Your task to perform on an android device: Open the clock Image 0: 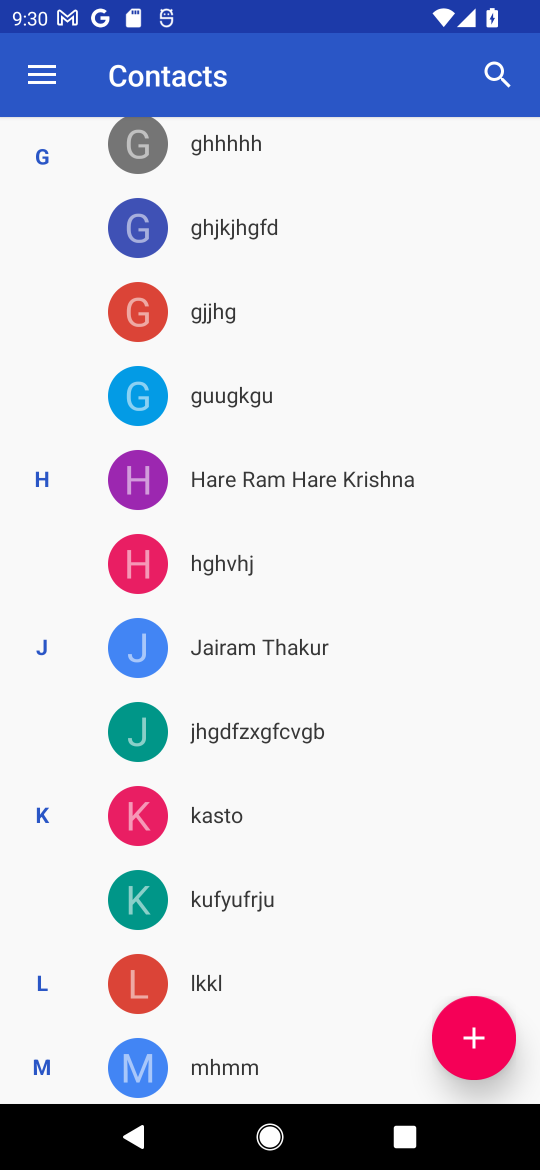
Step 0: press home button
Your task to perform on an android device: Open the clock Image 1: 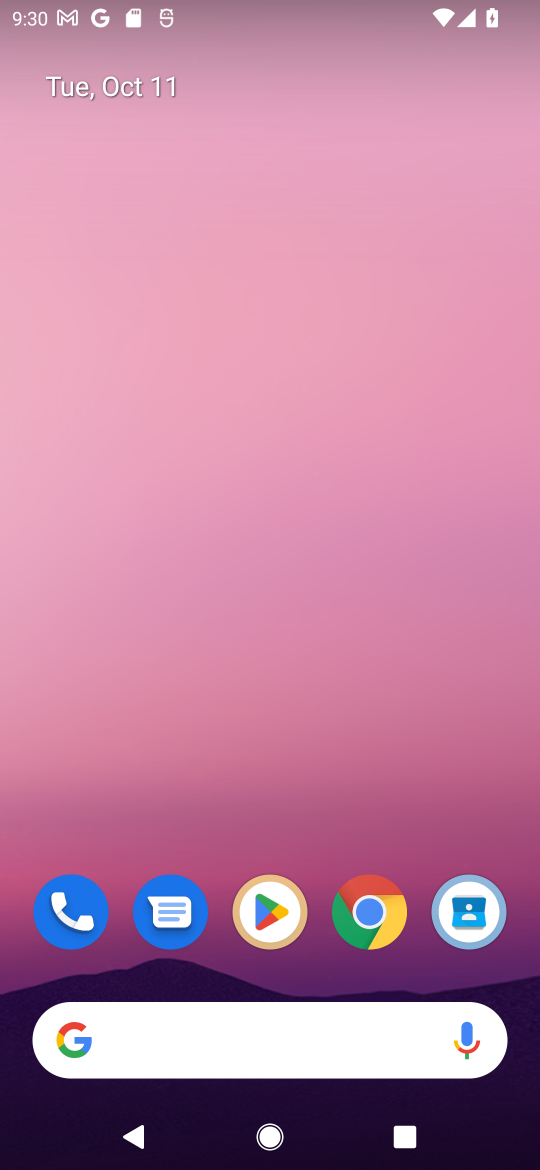
Step 1: drag from (410, 960) to (439, 219)
Your task to perform on an android device: Open the clock Image 2: 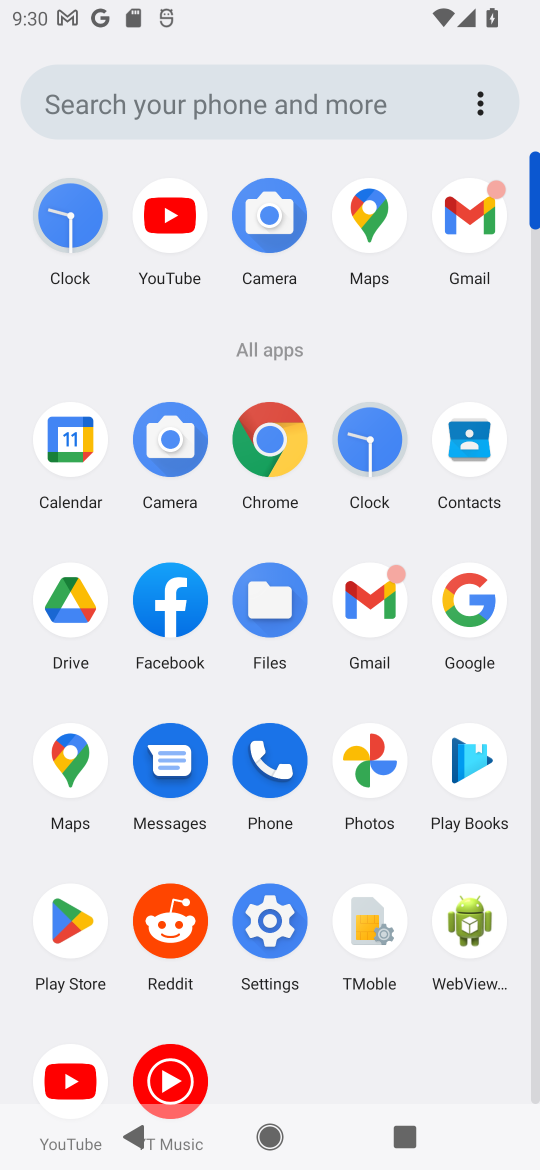
Step 2: click (371, 441)
Your task to perform on an android device: Open the clock Image 3: 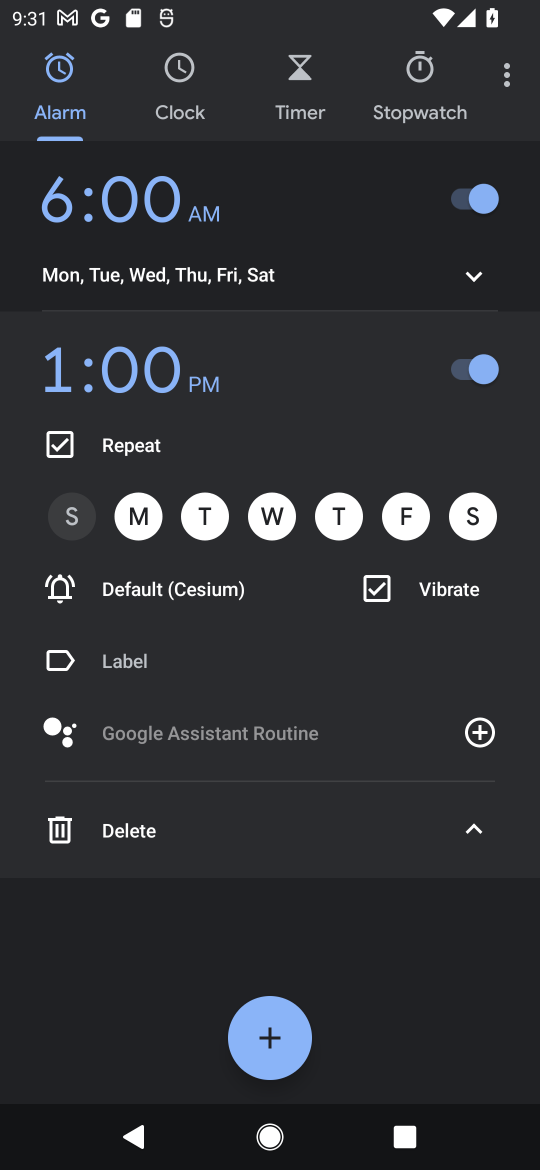
Step 3: click (181, 72)
Your task to perform on an android device: Open the clock Image 4: 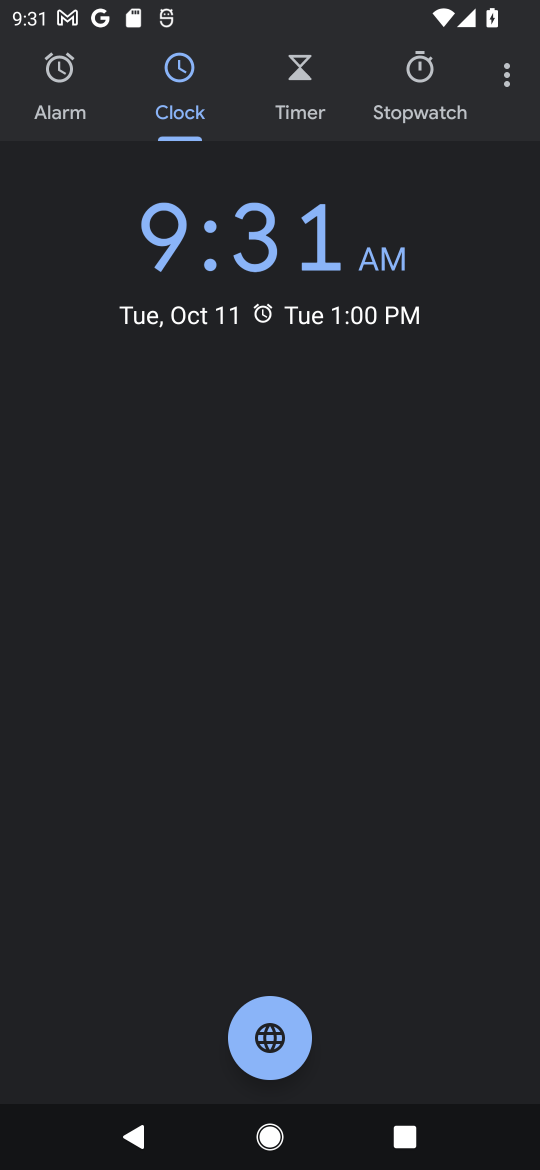
Step 4: task complete